Your task to perform on an android device: Go to network settings Image 0: 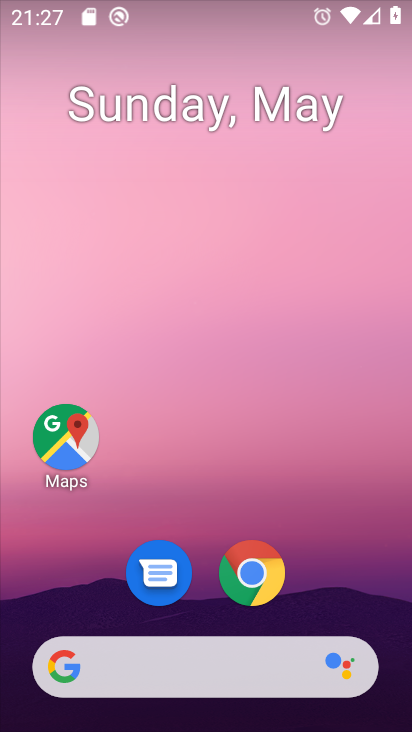
Step 0: drag from (233, 491) to (214, 0)
Your task to perform on an android device: Go to network settings Image 1: 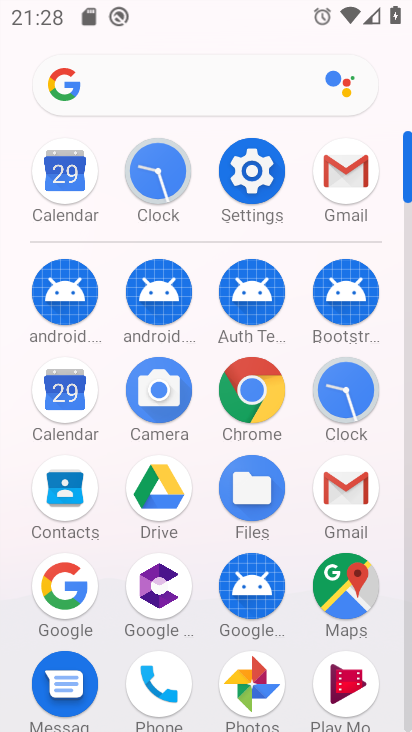
Step 1: click (240, 184)
Your task to perform on an android device: Go to network settings Image 2: 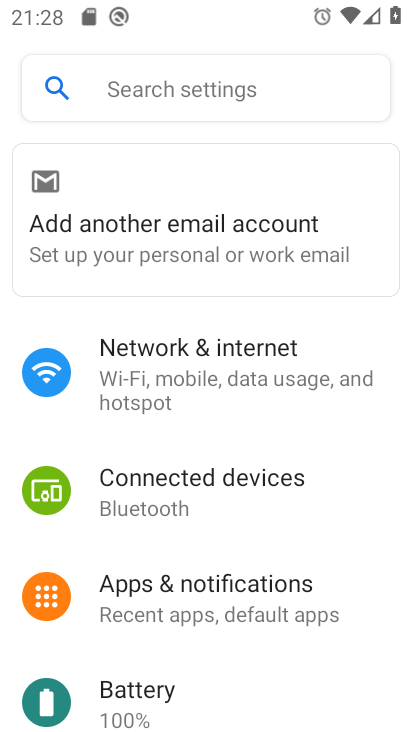
Step 2: click (215, 365)
Your task to perform on an android device: Go to network settings Image 3: 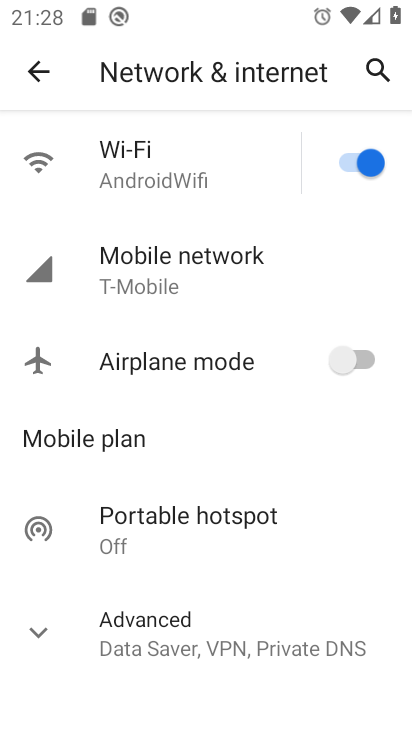
Step 3: task complete